Your task to perform on an android device: open chrome privacy settings Image 0: 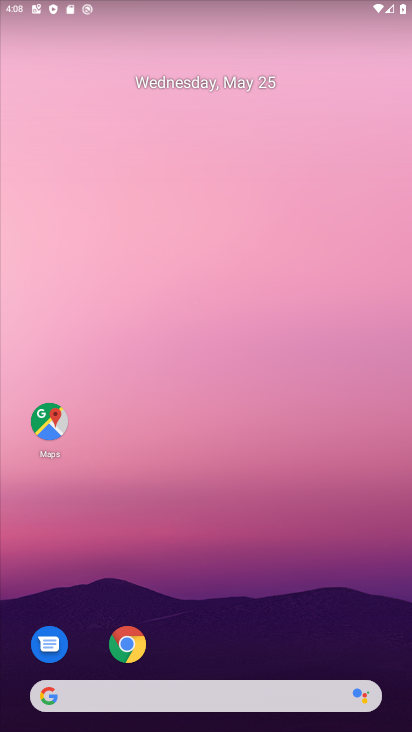
Step 0: click (129, 647)
Your task to perform on an android device: open chrome privacy settings Image 1: 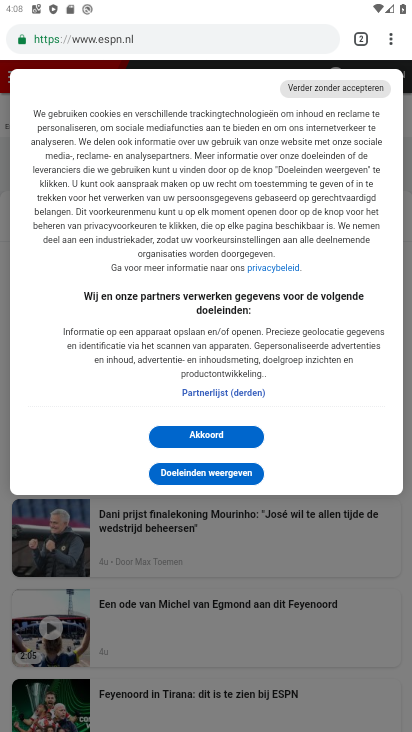
Step 1: click (390, 40)
Your task to perform on an android device: open chrome privacy settings Image 2: 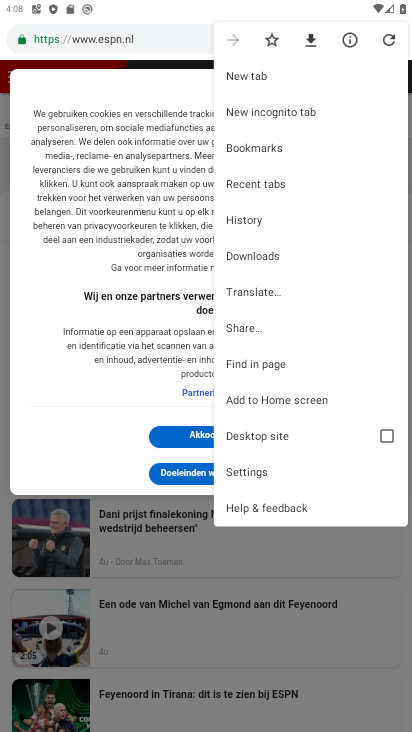
Step 2: click (250, 474)
Your task to perform on an android device: open chrome privacy settings Image 3: 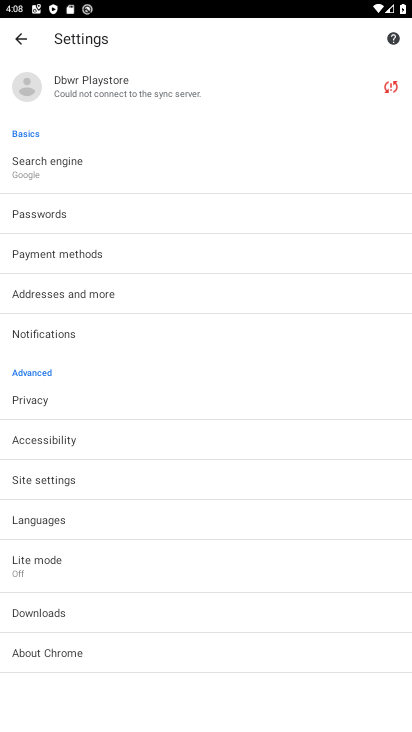
Step 3: click (31, 405)
Your task to perform on an android device: open chrome privacy settings Image 4: 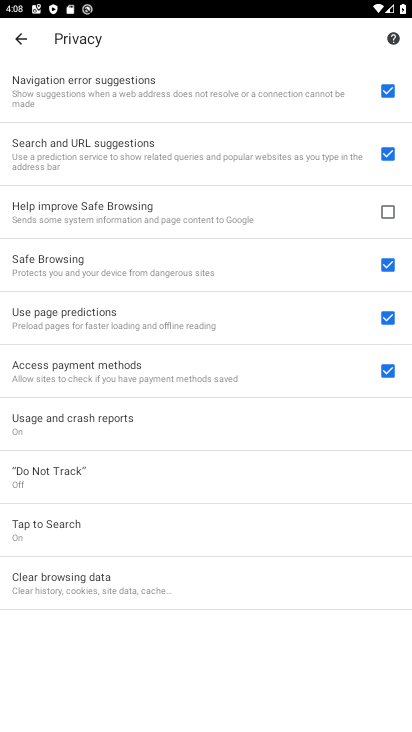
Step 4: task complete